Your task to perform on an android device: turn off wifi Image 0: 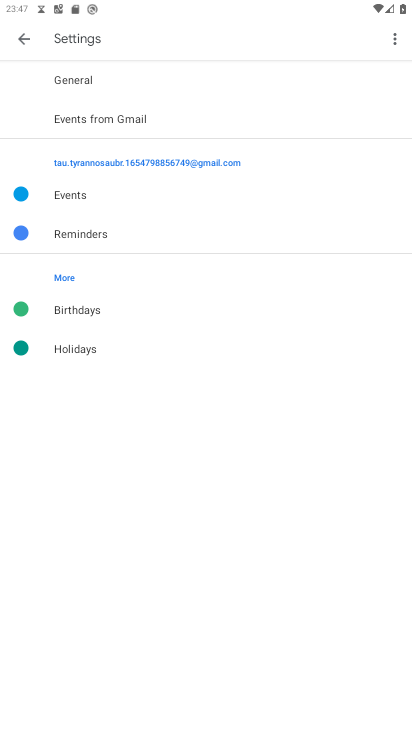
Step 0: press home button
Your task to perform on an android device: turn off wifi Image 1: 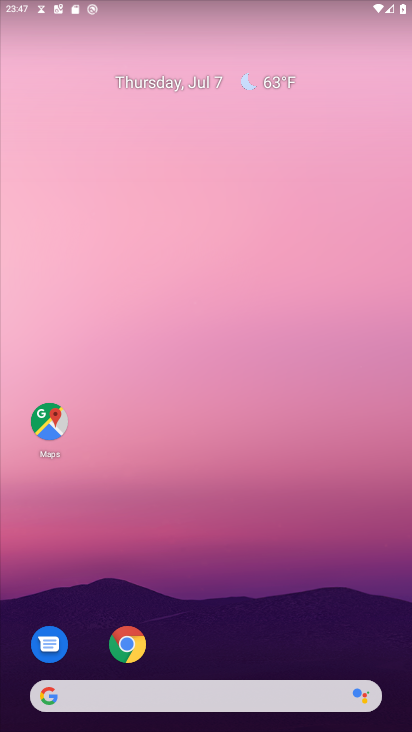
Step 1: drag from (232, 403) to (232, 121)
Your task to perform on an android device: turn off wifi Image 2: 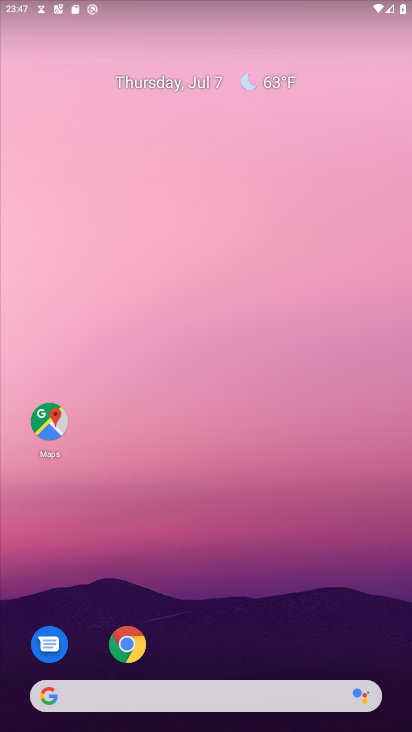
Step 2: drag from (199, 723) to (217, 120)
Your task to perform on an android device: turn off wifi Image 3: 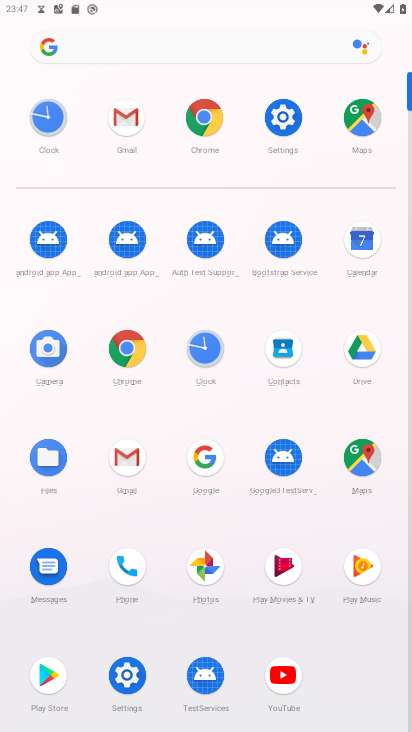
Step 3: click (283, 120)
Your task to perform on an android device: turn off wifi Image 4: 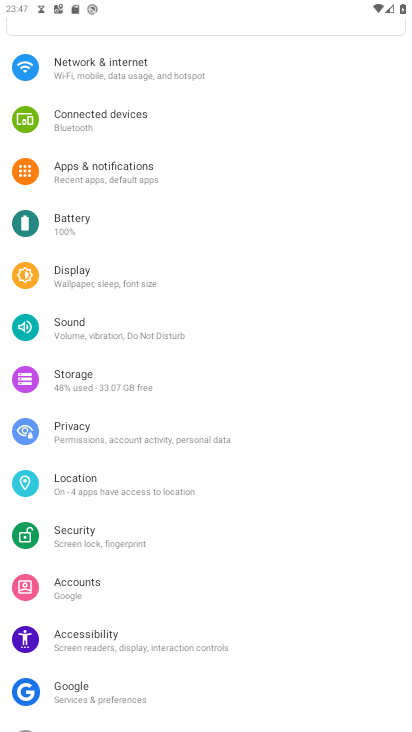
Step 4: drag from (200, 76) to (187, 464)
Your task to perform on an android device: turn off wifi Image 5: 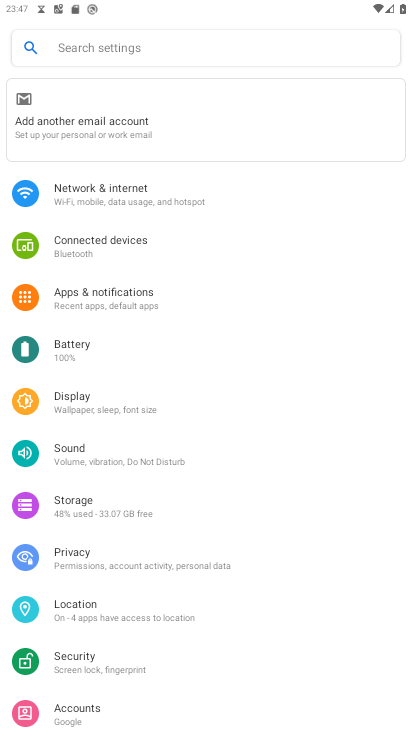
Step 5: click (82, 192)
Your task to perform on an android device: turn off wifi Image 6: 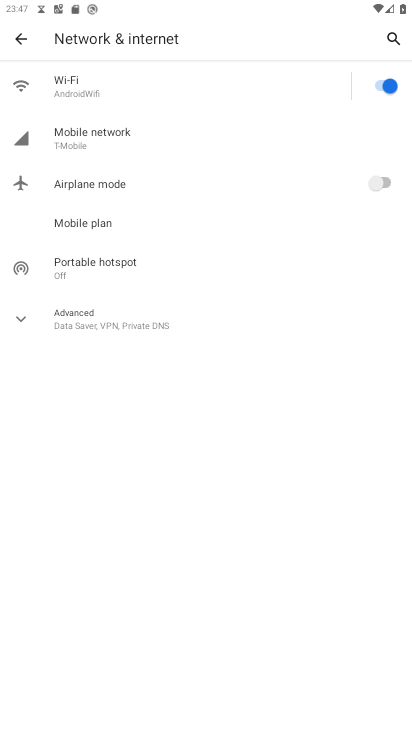
Step 6: click (385, 83)
Your task to perform on an android device: turn off wifi Image 7: 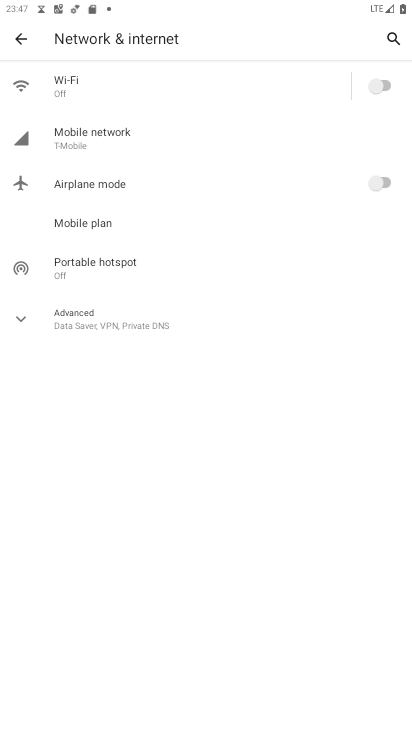
Step 7: task complete